Your task to perform on an android device: toggle notification dots Image 0: 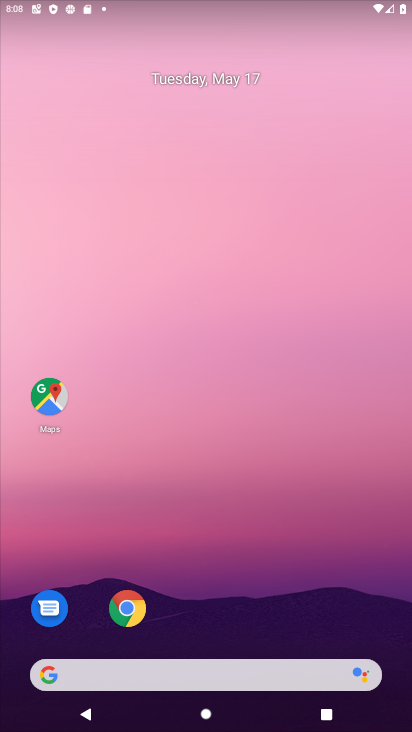
Step 0: drag from (195, 623) to (201, 512)
Your task to perform on an android device: toggle notification dots Image 1: 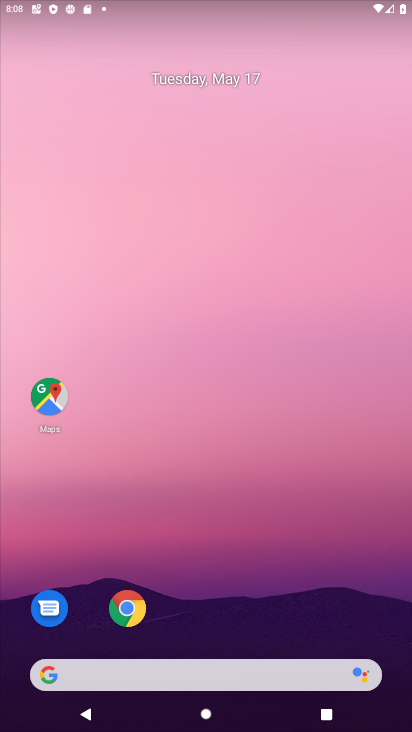
Step 1: drag from (168, 609) to (160, 75)
Your task to perform on an android device: toggle notification dots Image 2: 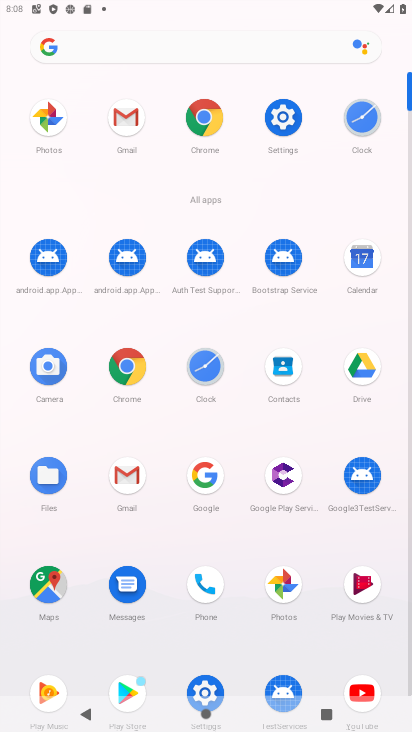
Step 2: click (289, 129)
Your task to perform on an android device: toggle notification dots Image 3: 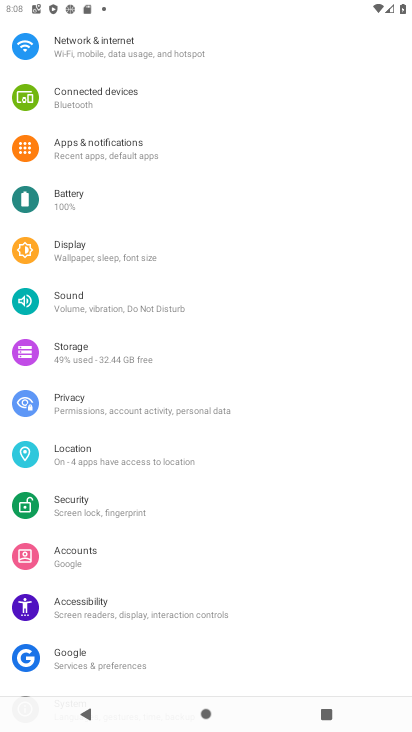
Step 3: click (98, 160)
Your task to perform on an android device: toggle notification dots Image 4: 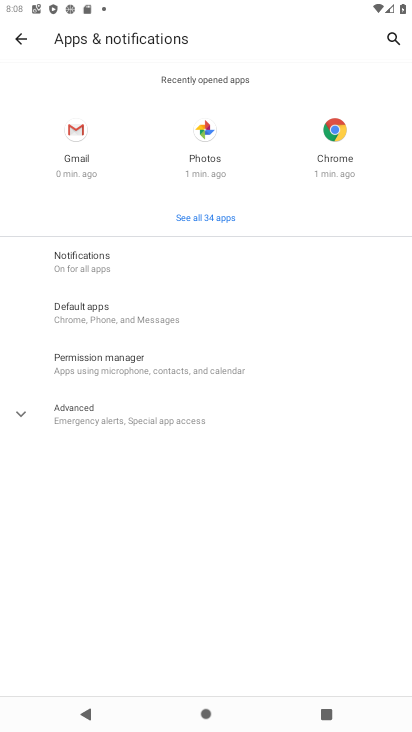
Step 4: click (153, 263)
Your task to perform on an android device: toggle notification dots Image 5: 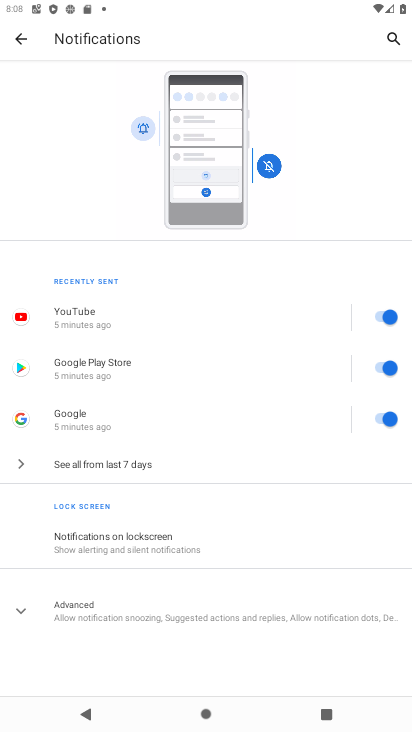
Step 5: click (273, 551)
Your task to perform on an android device: toggle notification dots Image 6: 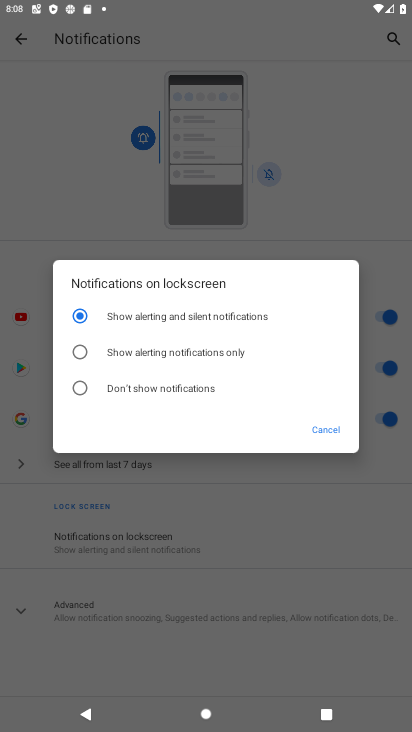
Step 6: click (308, 431)
Your task to perform on an android device: toggle notification dots Image 7: 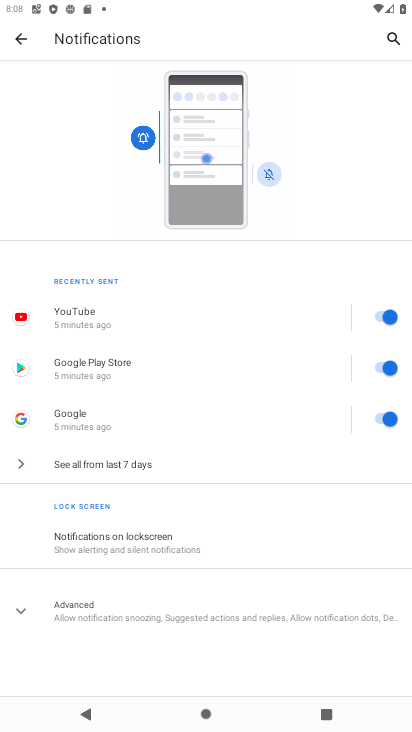
Step 7: click (120, 606)
Your task to perform on an android device: toggle notification dots Image 8: 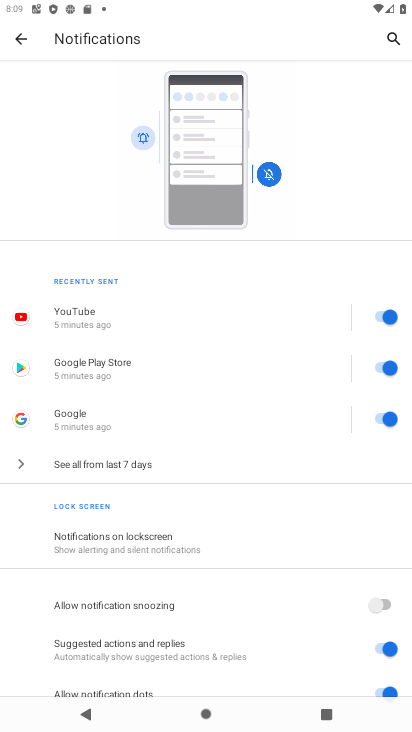
Step 8: drag from (195, 666) to (238, 163)
Your task to perform on an android device: toggle notification dots Image 9: 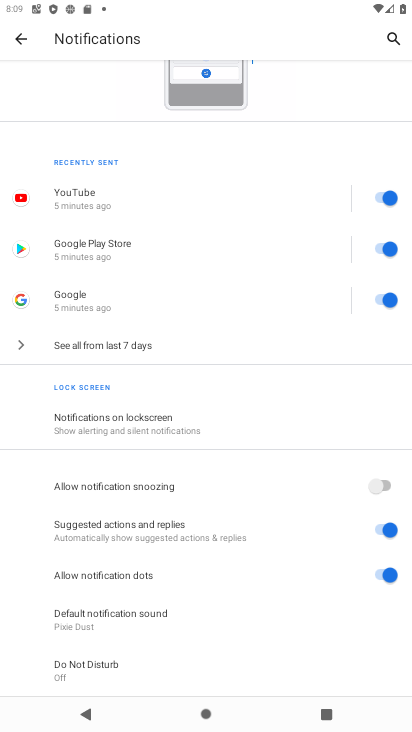
Step 9: click (376, 578)
Your task to perform on an android device: toggle notification dots Image 10: 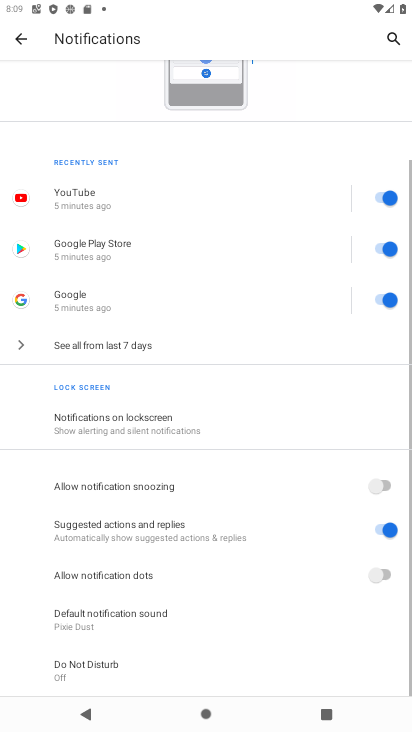
Step 10: click (376, 578)
Your task to perform on an android device: toggle notification dots Image 11: 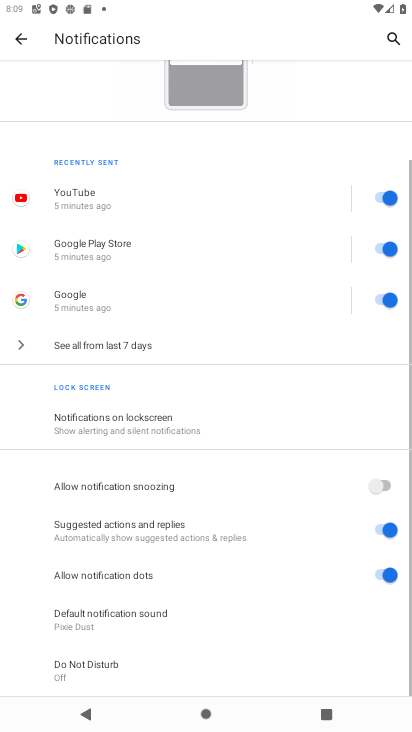
Step 11: click (376, 578)
Your task to perform on an android device: toggle notification dots Image 12: 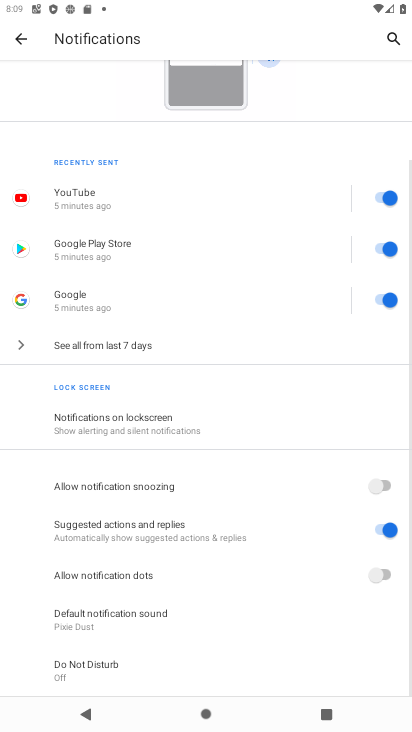
Step 12: task complete